Your task to perform on an android device: change the clock display to analog Image 0: 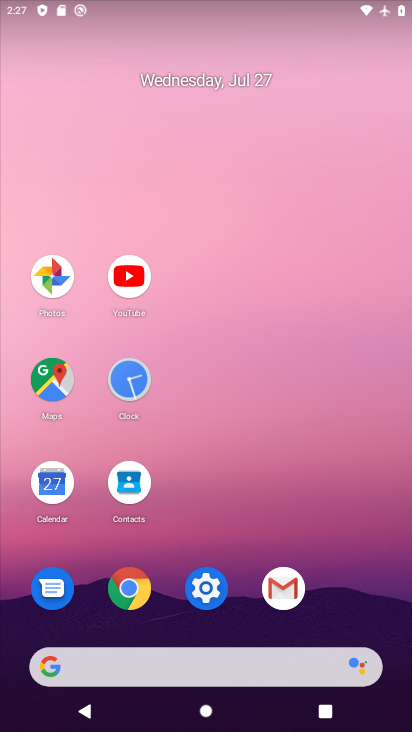
Step 0: click (123, 381)
Your task to perform on an android device: change the clock display to analog Image 1: 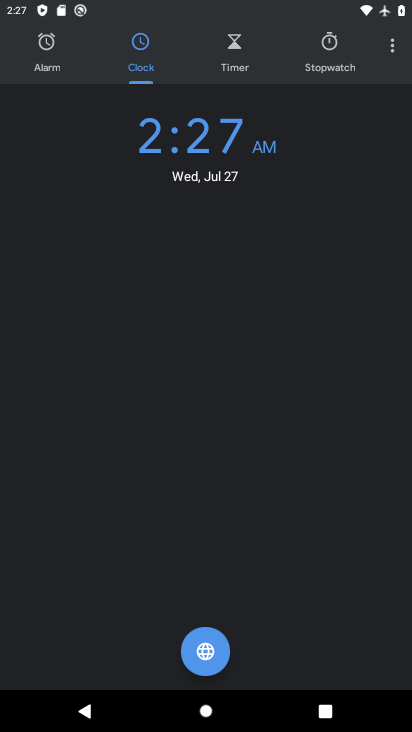
Step 1: click (388, 53)
Your task to perform on an android device: change the clock display to analog Image 2: 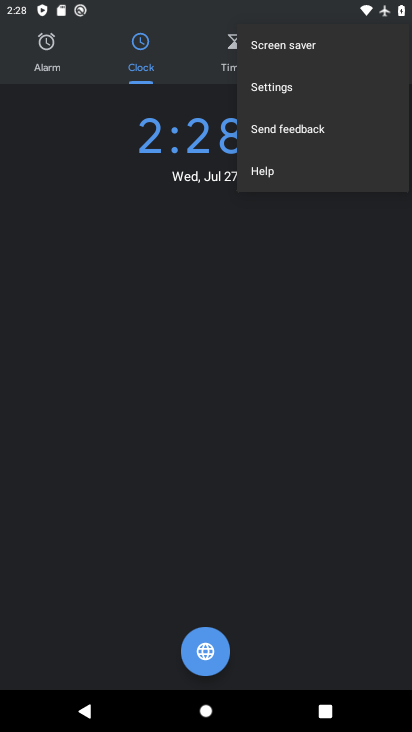
Step 2: click (271, 85)
Your task to perform on an android device: change the clock display to analog Image 3: 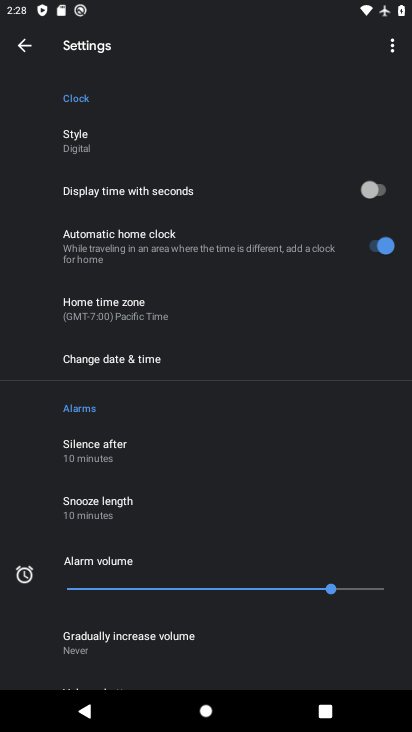
Step 3: click (77, 132)
Your task to perform on an android device: change the clock display to analog Image 4: 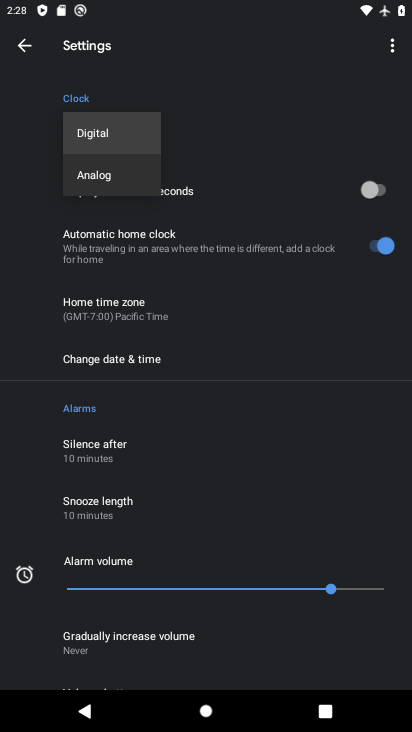
Step 4: click (89, 176)
Your task to perform on an android device: change the clock display to analog Image 5: 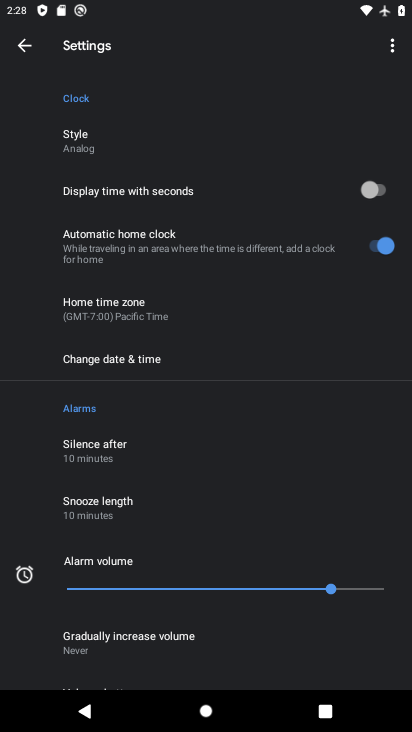
Step 5: task complete